Your task to perform on an android device: Open Reddit.com Image 0: 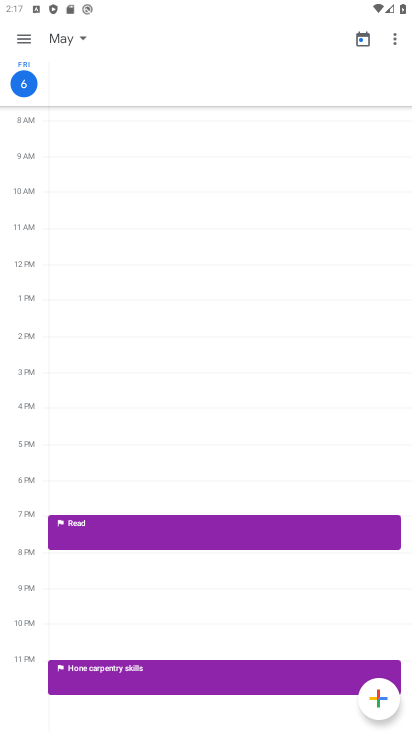
Step 0: press home button
Your task to perform on an android device: Open Reddit.com Image 1: 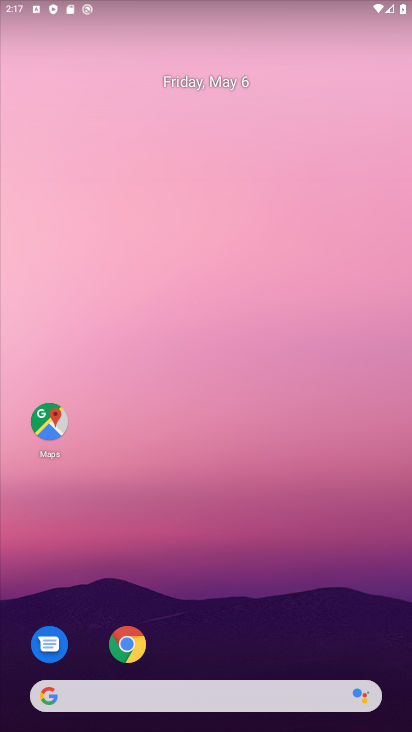
Step 1: click (131, 689)
Your task to perform on an android device: Open Reddit.com Image 2: 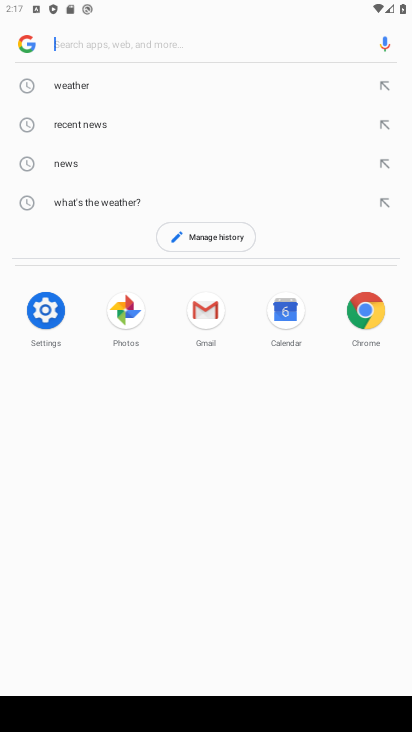
Step 2: type "reddit.com"
Your task to perform on an android device: Open Reddit.com Image 3: 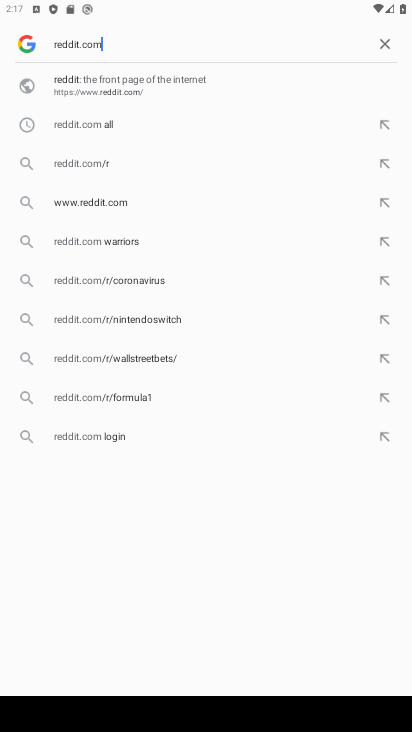
Step 3: click (157, 77)
Your task to perform on an android device: Open Reddit.com Image 4: 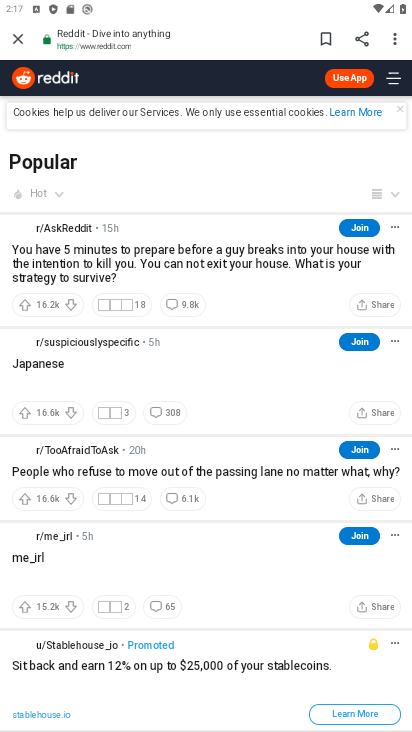
Step 4: task complete